Your task to perform on an android device: Go to Reddit.com Image 0: 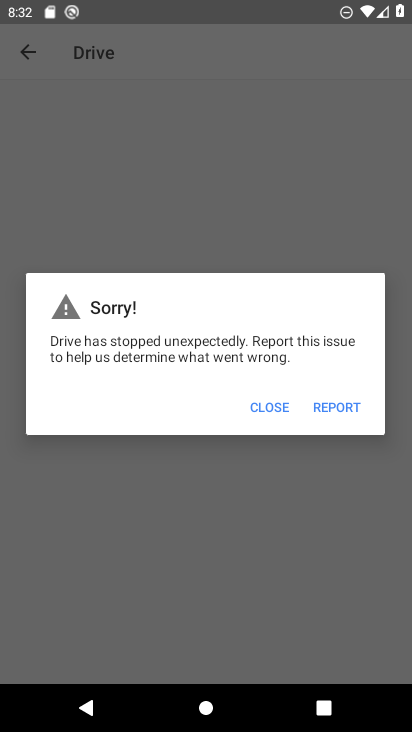
Step 0: press home button
Your task to perform on an android device: Go to Reddit.com Image 1: 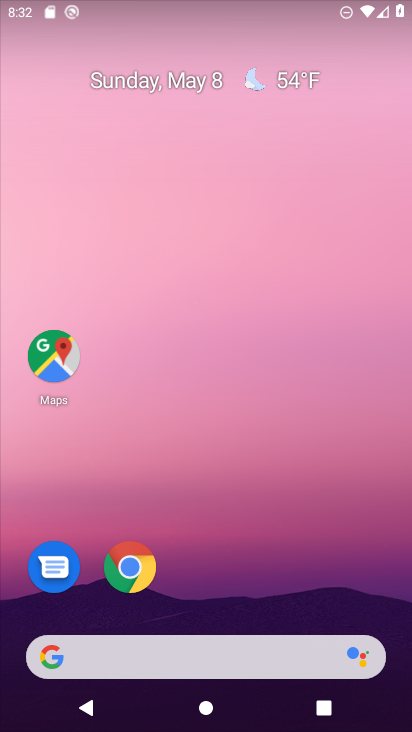
Step 1: drag from (267, 607) to (277, 195)
Your task to perform on an android device: Go to Reddit.com Image 2: 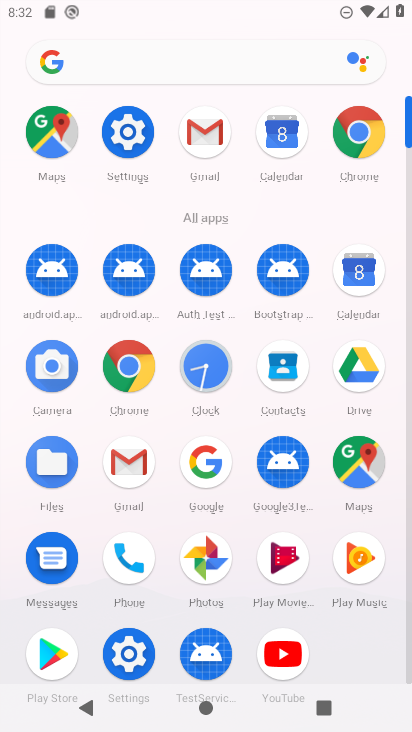
Step 2: click (351, 135)
Your task to perform on an android device: Go to Reddit.com Image 3: 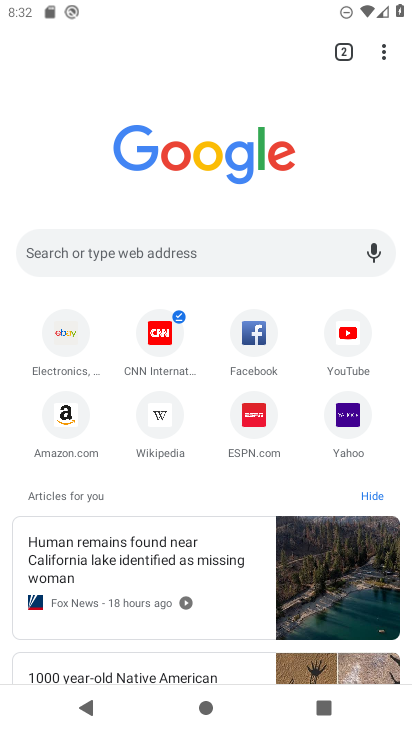
Step 3: click (153, 245)
Your task to perform on an android device: Go to Reddit.com Image 4: 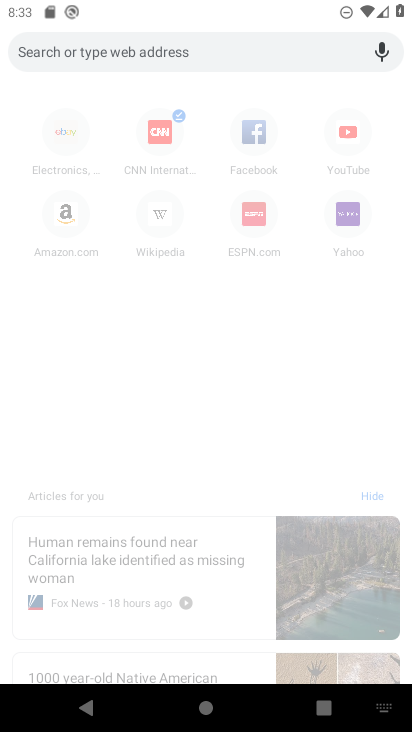
Step 4: type "reddit.com"
Your task to perform on an android device: Go to Reddit.com Image 5: 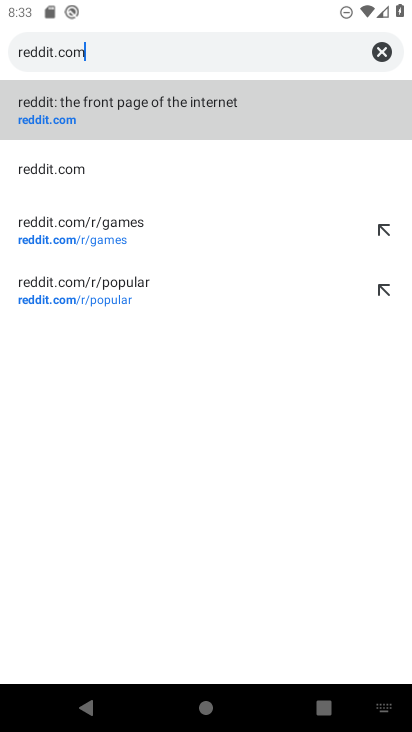
Step 5: click (23, 160)
Your task to perform on an android device: Go to Reddit.com Image 6: 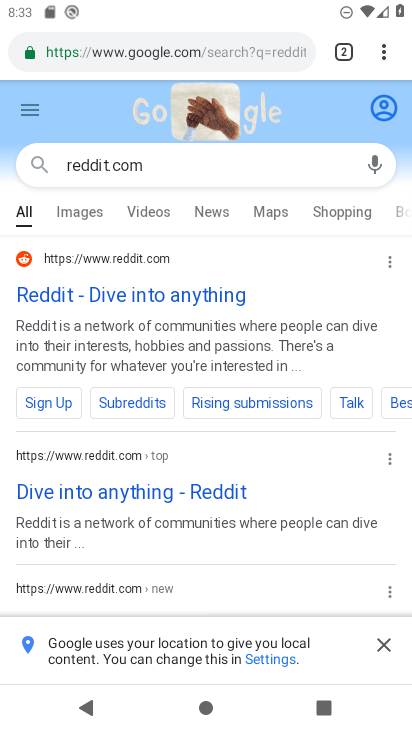
Step 6: click (73, 299)
Your task to perform on an android device: Go to Reddit.com Image 7: 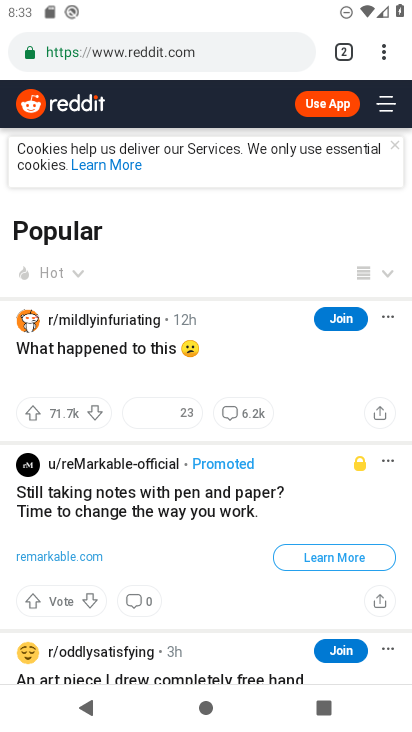
Step 7: task complete